Your task to perform on an android device: turn notification dots on Image 0: 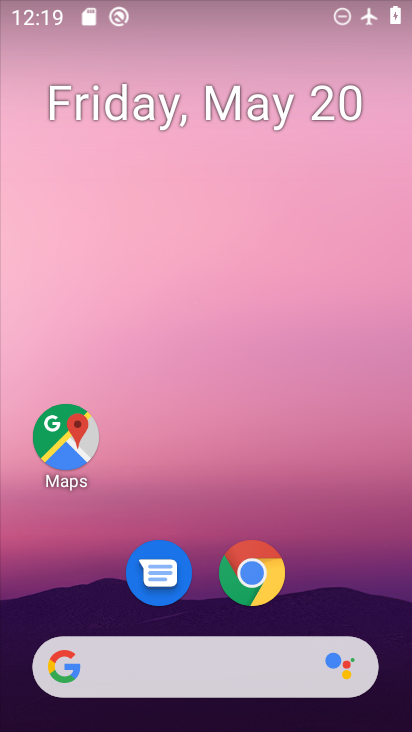
Step 0: drag from (232, 716) to (234, 127)
Your task to perform on an android device: turn notification dots on Image 1: 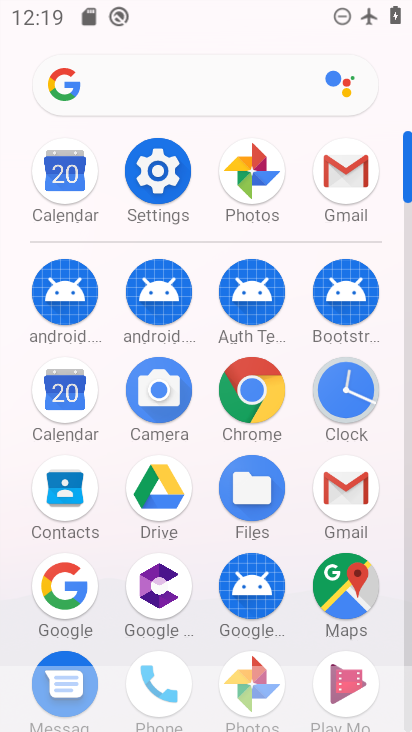
Step 1: click (158, 177)
Your task to perform on an android device: turn notification dots on Image 2: 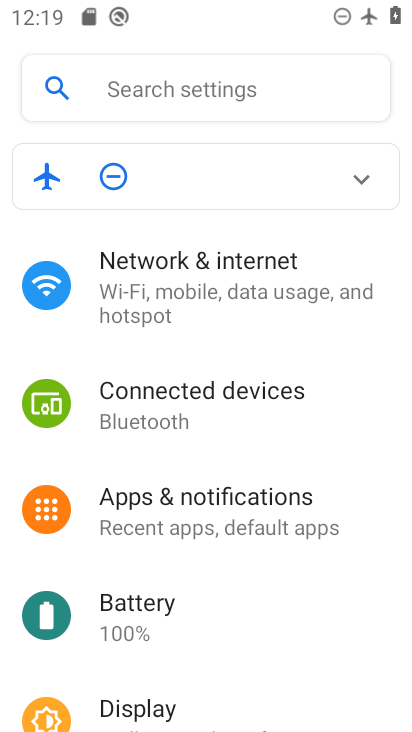
Step 2: click (228, 504)
Your task to perform on an android device: turn notification dots on Image 3: 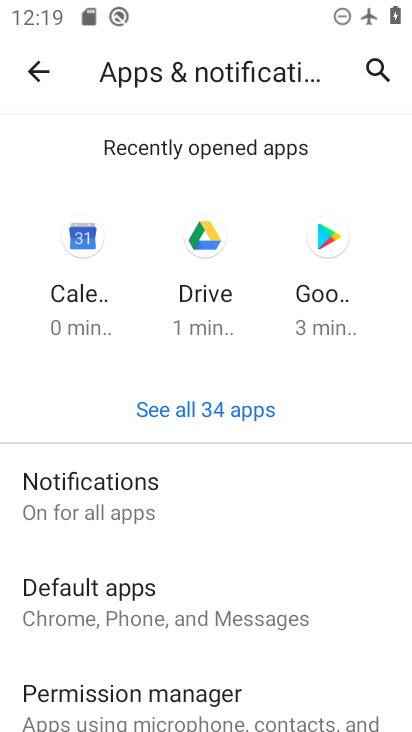
Step 3: click (106, 502)
Your task to perform on an android device: turn notification dots on Image 4: 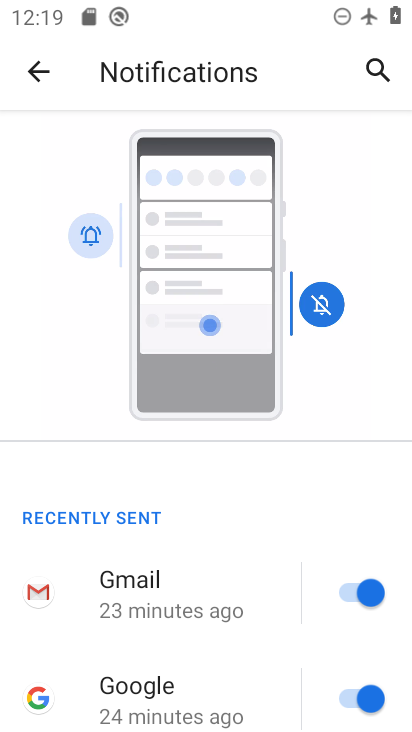
Step 4: drag from (241, 689) to (242, 286)
Your task to perform on an android device: turn notification dots on Image 5: 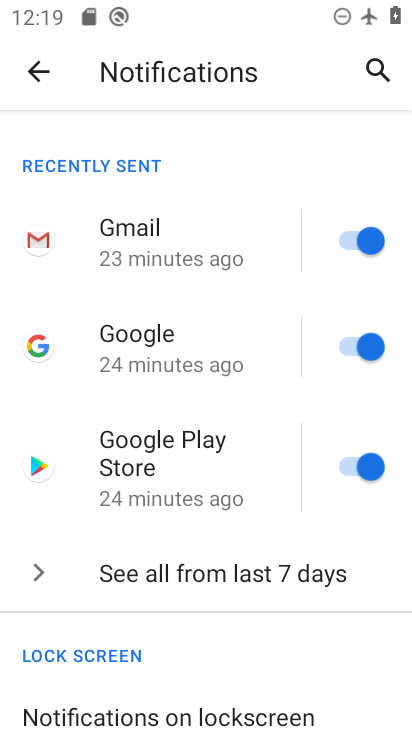
Step 5: drag from (270, 669) to (267, 381)
Your task to perform on an android device: turn notification dots on Image 6: 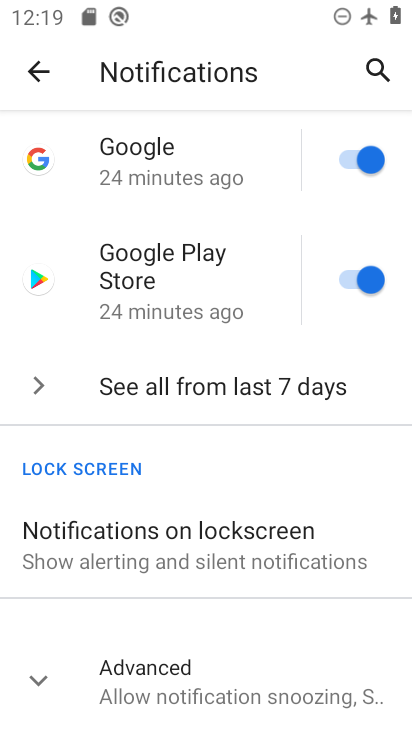
Step 6: drag from (262, 657) to (261, 379)
Your task to perform on an android device: turn notification dots on Image 7: 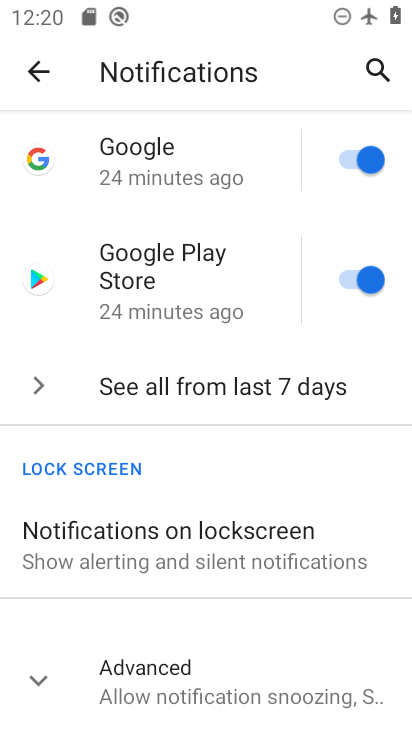
Step 7: click (174, 676)
Your task to perform on an android device: turn notification dots on Image 8: 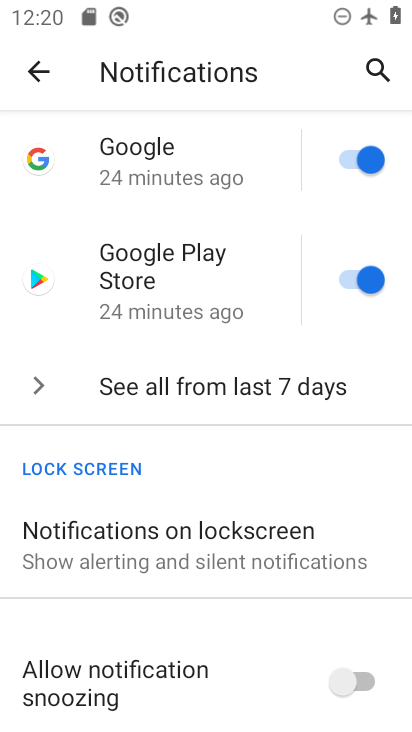
Step 8: task complete